Your task to perform on an android device: find snoozed emails in the gmail app Image 0: 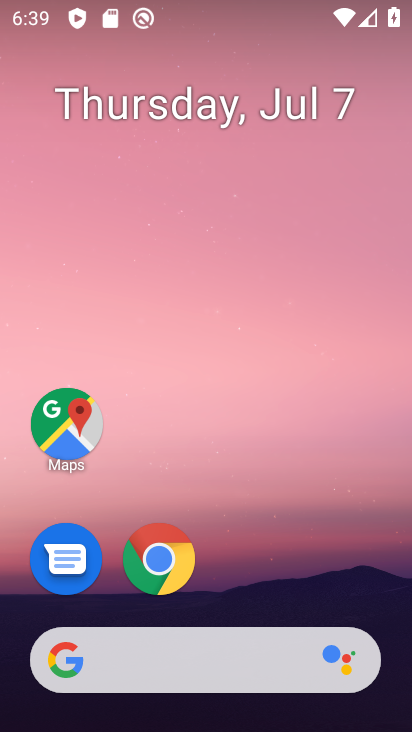
Step 0: drag from (226, 601) to (286, 42)
Your task to perform on an android device: find snoozed emails in the gmail app Image 1: 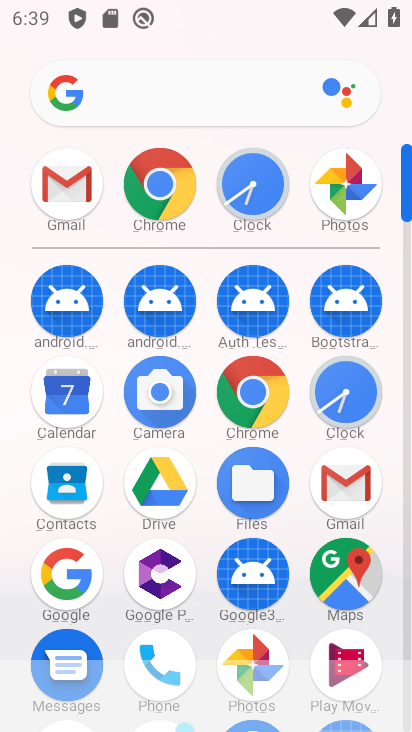
Step 1: click (356, 513)
Your task to perform on an android device: find snoozed emails in the gmail app Image 2: 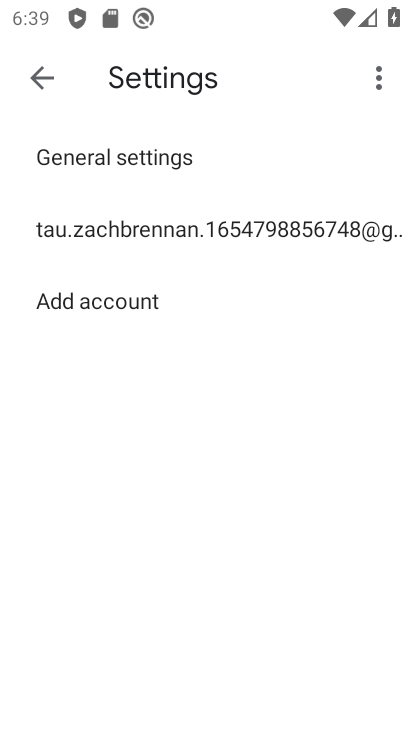
Step 2: click (42, 85)
Your task to perform on an android device: find snoozed emails in the gmail app Image 3: 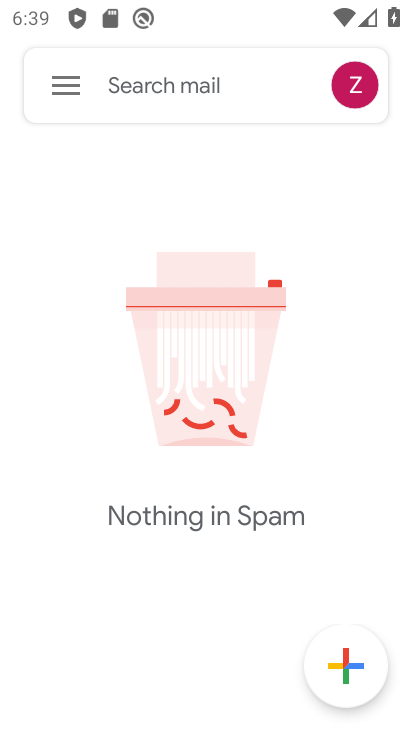
Step 3: click (60, 87)
Your task to perform on an android device: find snoozed emails in the gmail app Image 4: 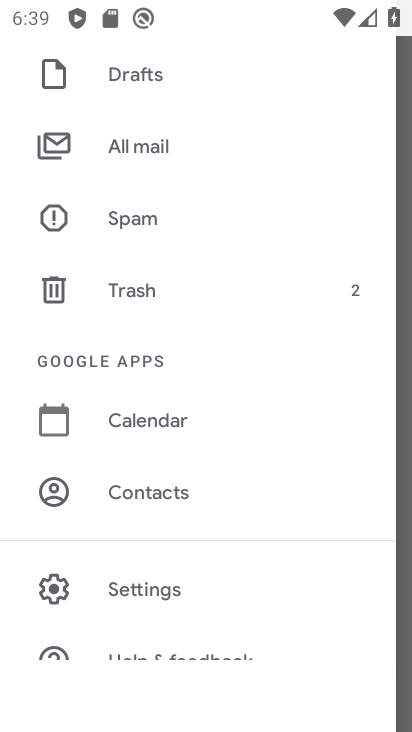
Step 4: drag from (170, 99) to (146, 404)
Your task to perform on an android device: find snoozed emails in the gmail app Image 5: 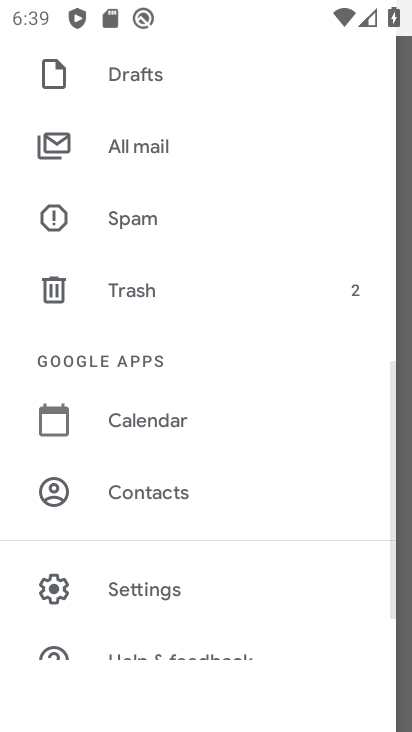
Step 5: drag from (191, 225) to (238, 573)
Your task to perform on an android device: find snoozed emails in the gmail app Image 6: 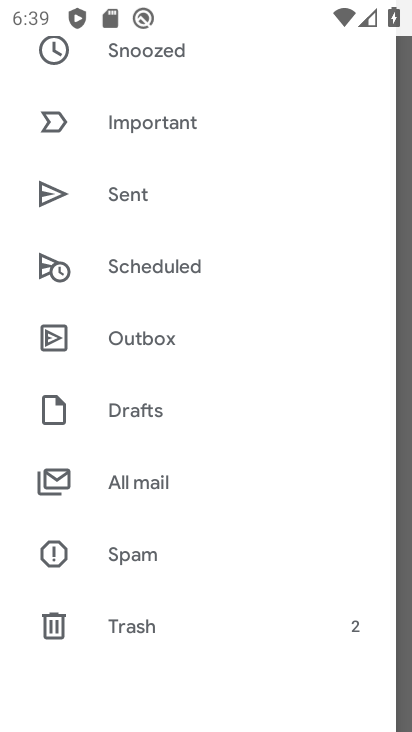
Step 6: drag from (211, 237) to (192, 464)
Your task to perform on an android device: find snoozed emails in the gmail app Image 7: 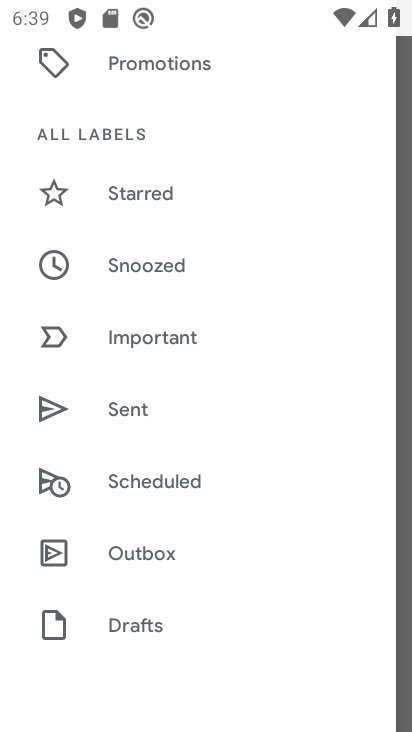
Step 7: click (161, 275)
Your task to perform on an android device: find snoozed emails in the gmail app Image 8: 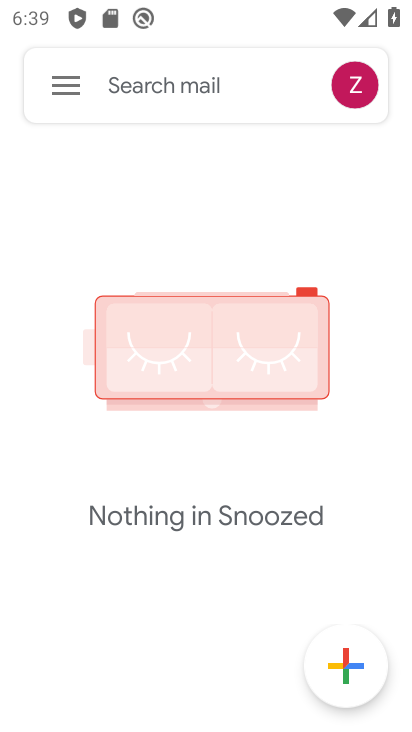
Step 8: task complete